Your task to perform on an android device: empty trash in google photos Image 0: 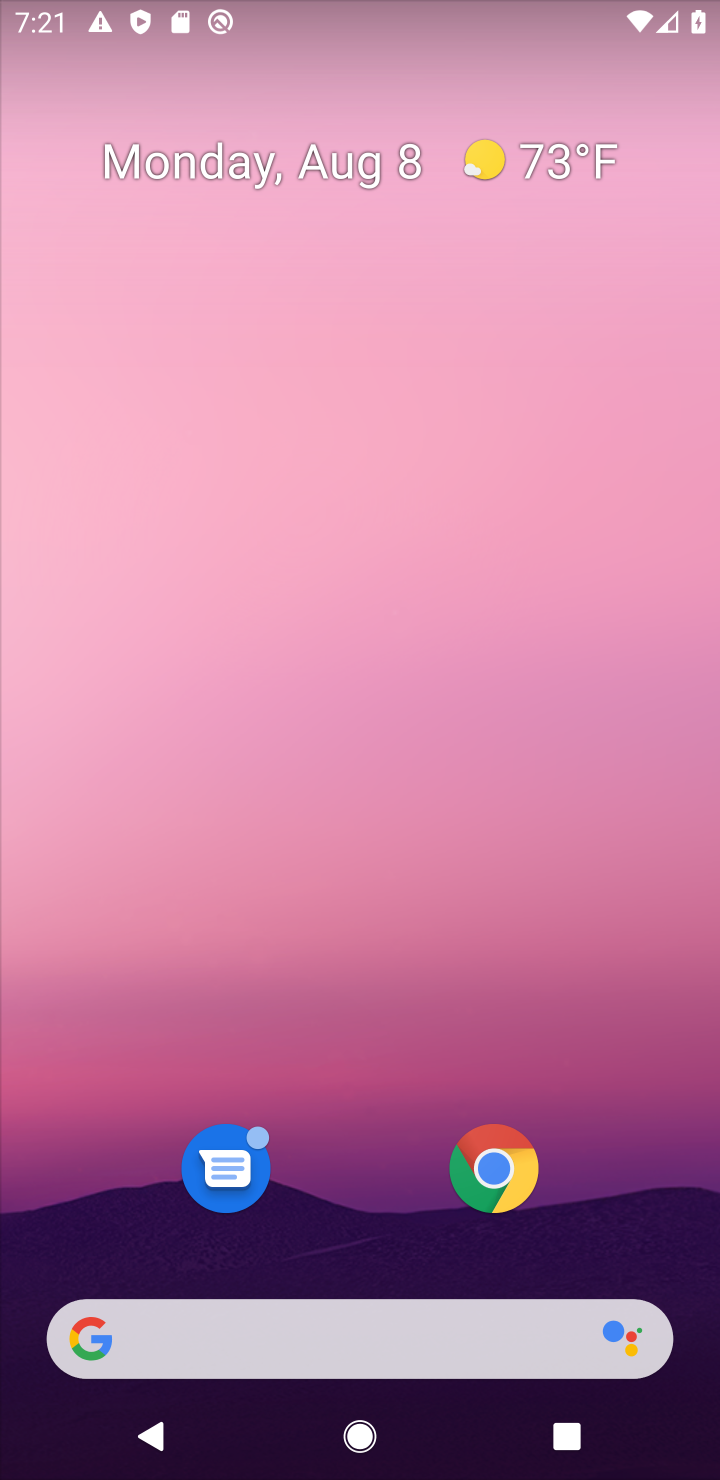
Step 0: drag from (362, 1326) to (383, 284)
Your task to perform on an android device: empty trash in google photos Image 1: 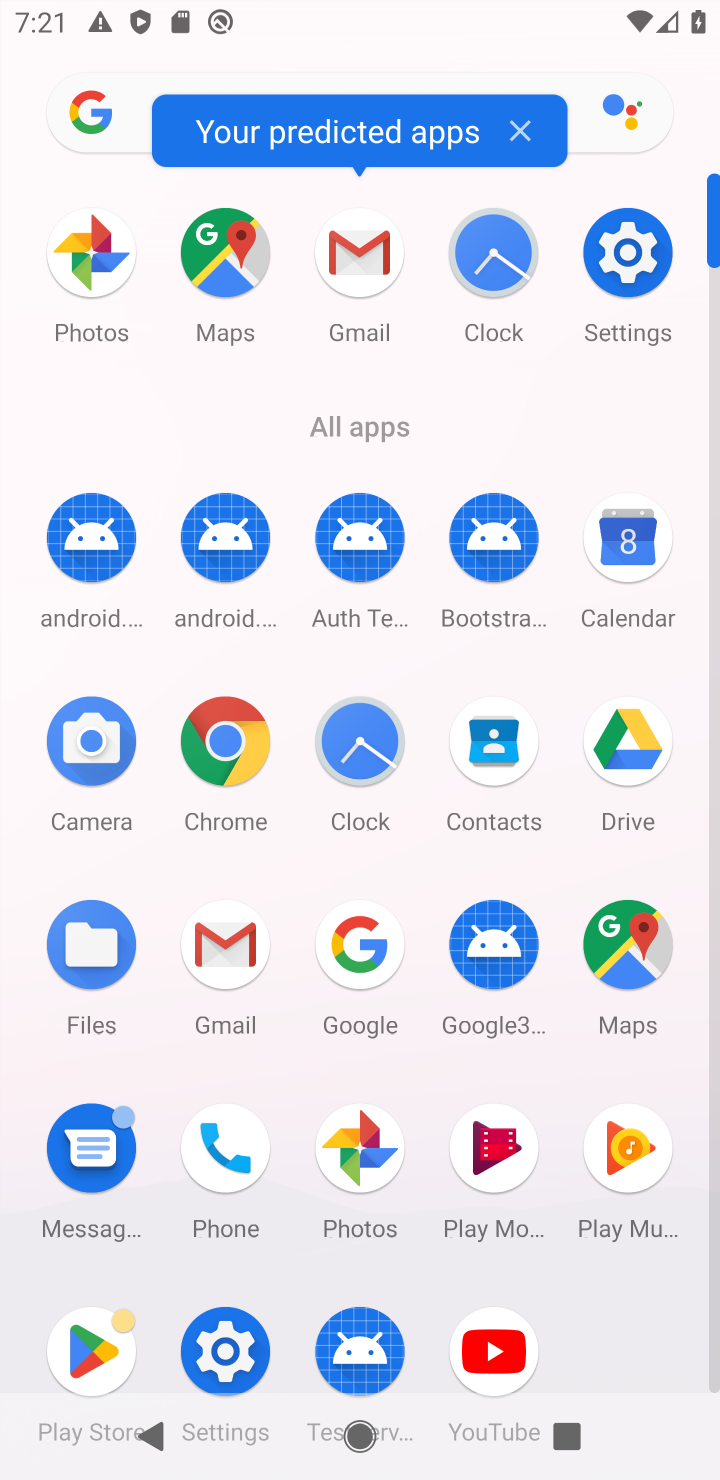
Step 1: click (368, 1204)
Your task to perform on an android device: empty trash in google photos Image 2: 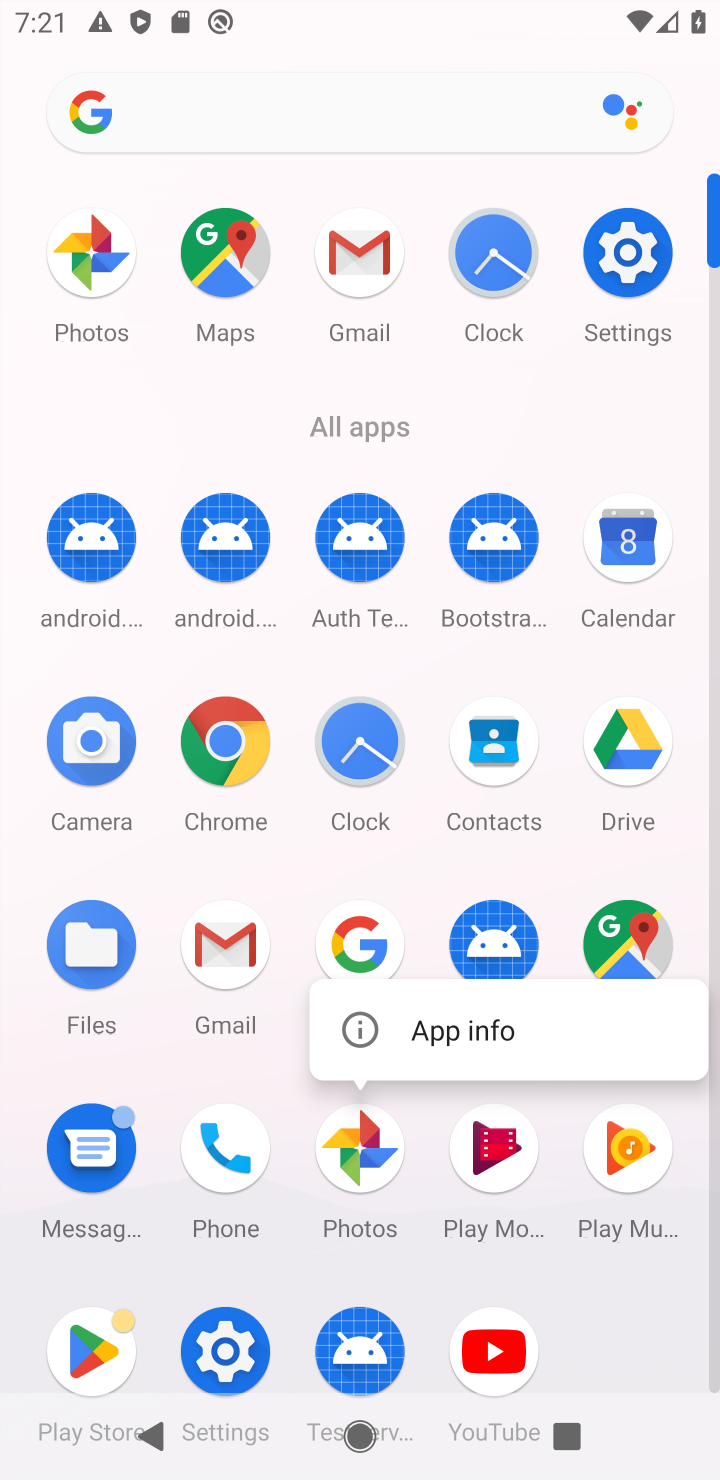
Step 2: click (382, 1102)
Your task to perform on an android device: empty trash in google photos Image 3: 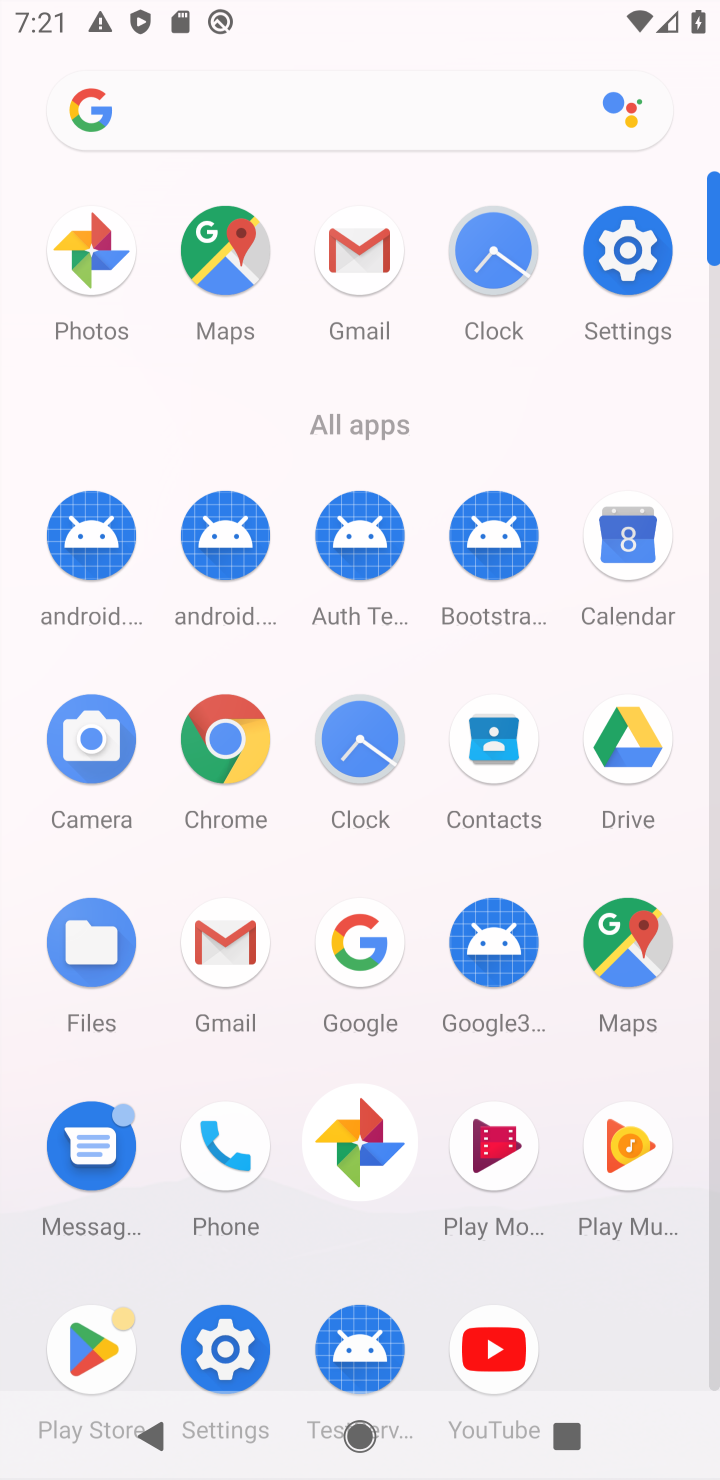
Step 3: click (358, 1138)
Your task to perform on an android device: empty trash in google photos Image 4: 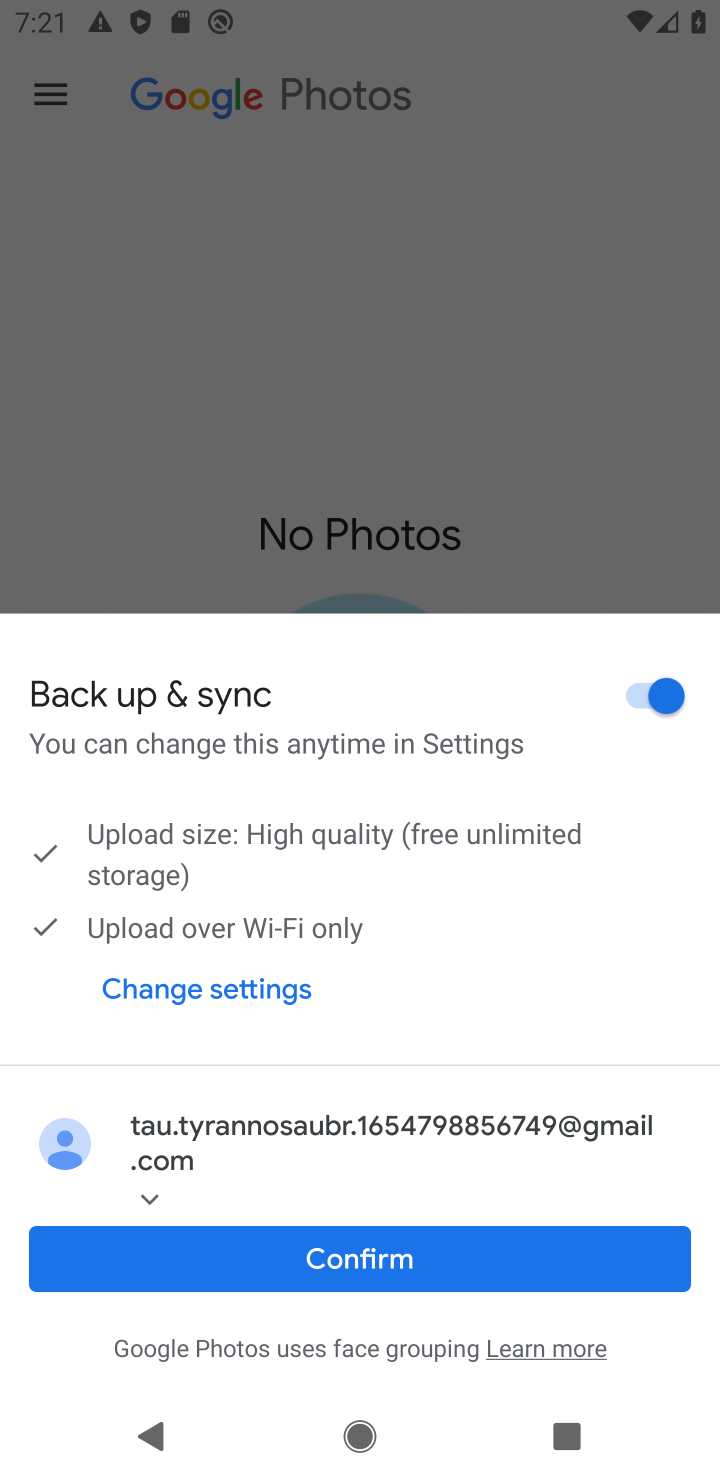
Step 4: click (341, 1258)
Your task to perform on an android device: empty trash in google photos Image 5: 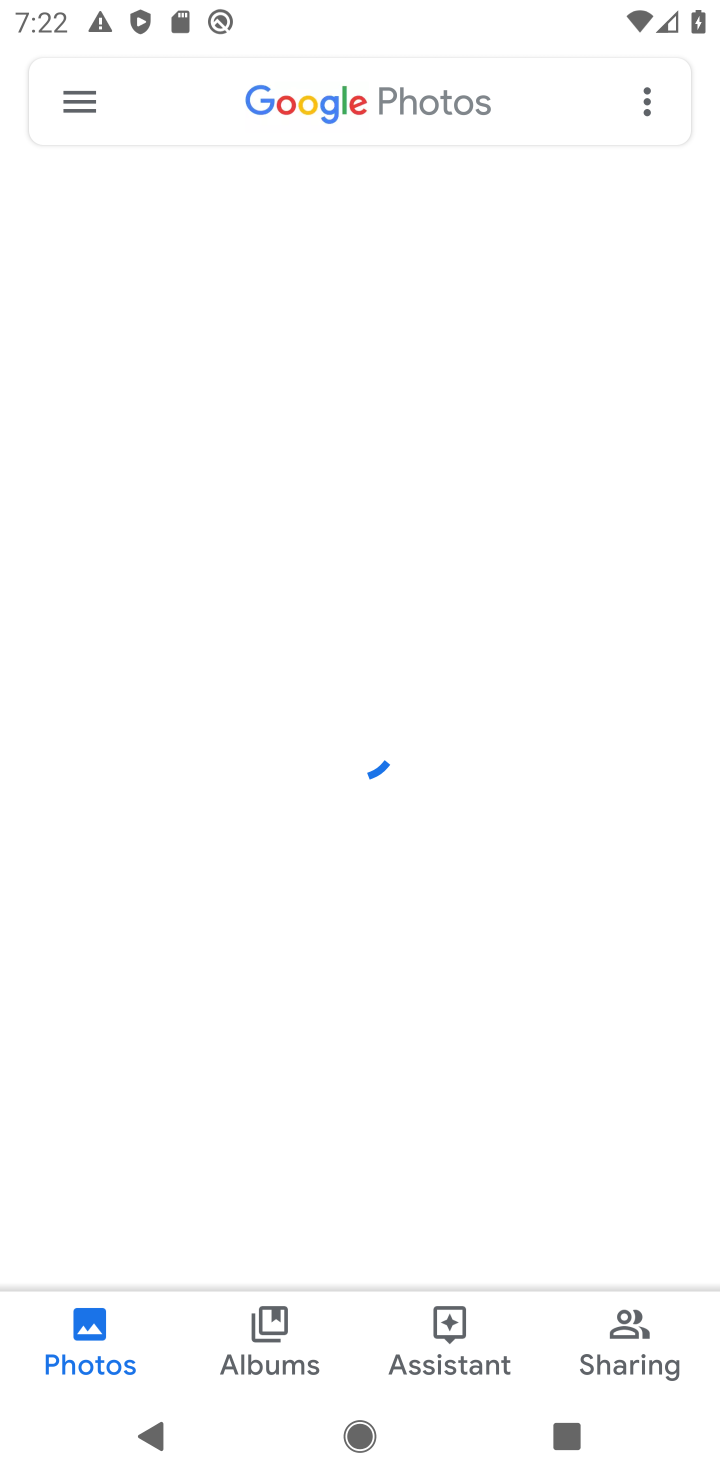
Step 5: click (76, 97)
Your task to perform on an android device: empty trash in google photos Image 6: 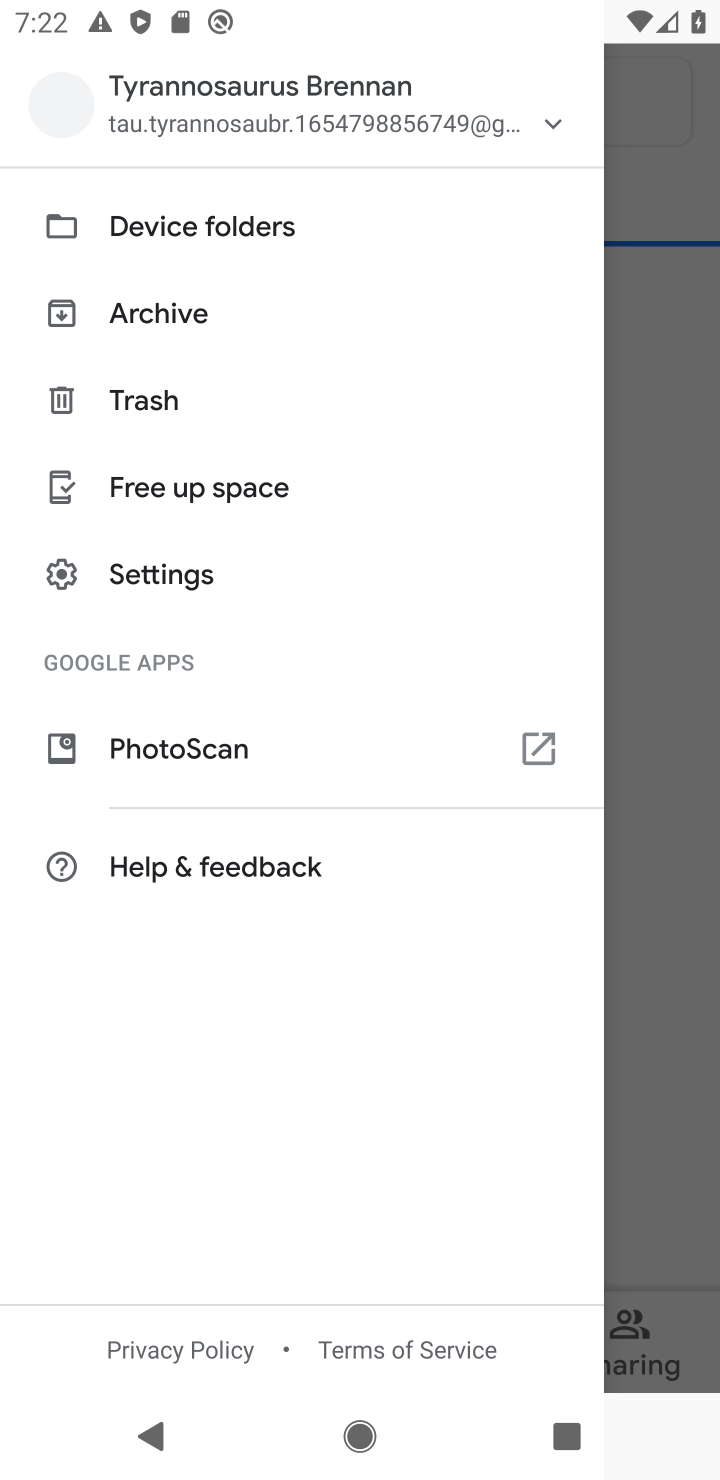
Step 6: click (153, 387)
Your task to perform on an android device: empty trash in google photos Image 7: 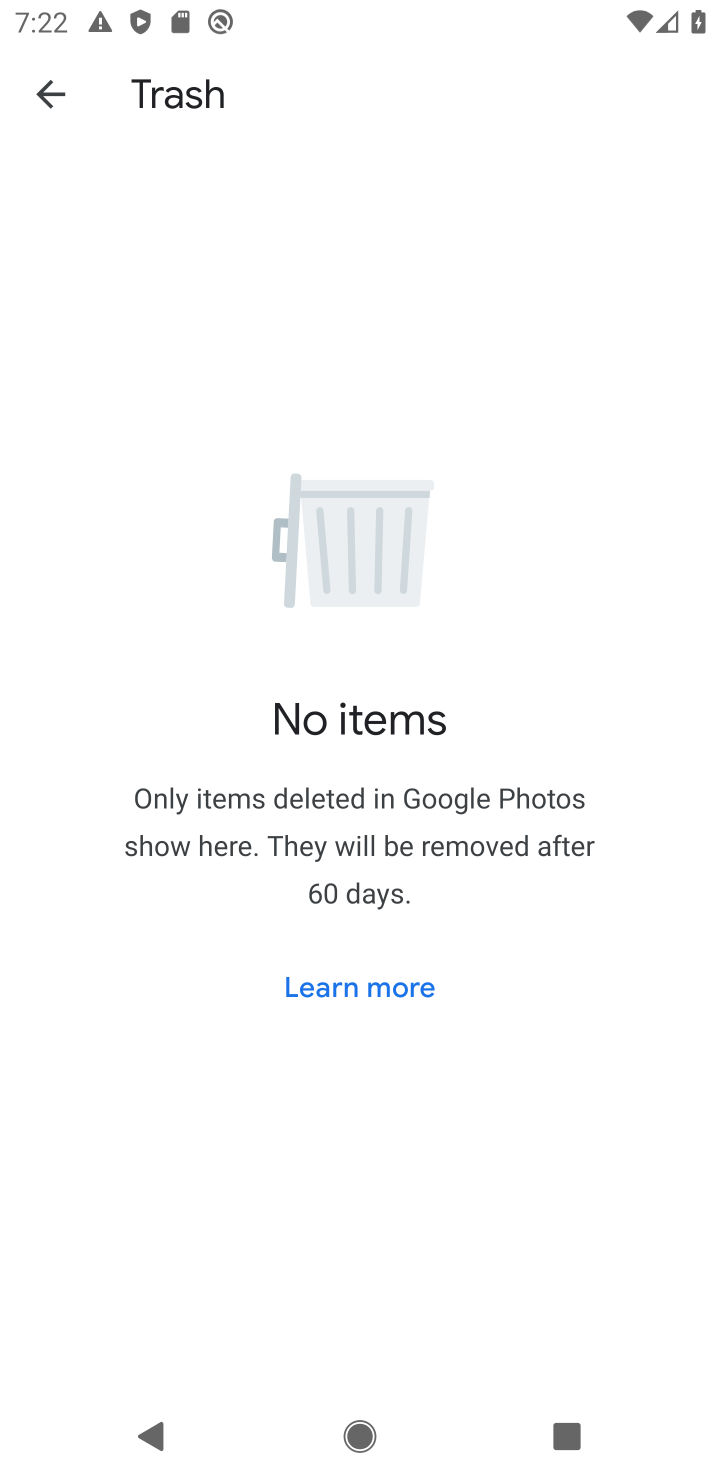
Step 7: task complete